Your task to perform on an android device: toggle priority inbox in the gmail app Image 0: 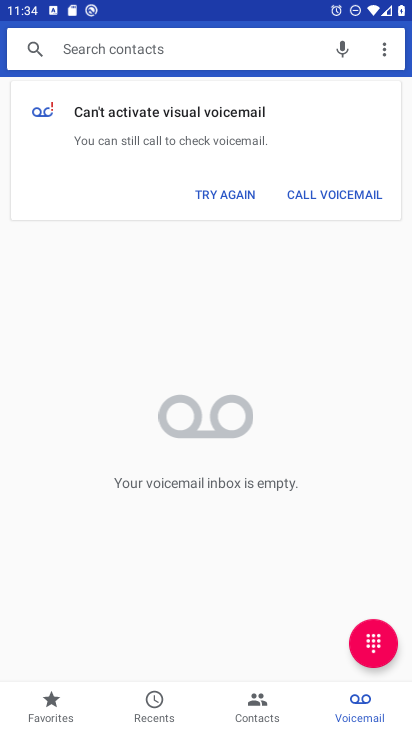
Step 0: press home button
Your task to perform on an android device: toggle priority inbox in the gmail app Image 1: 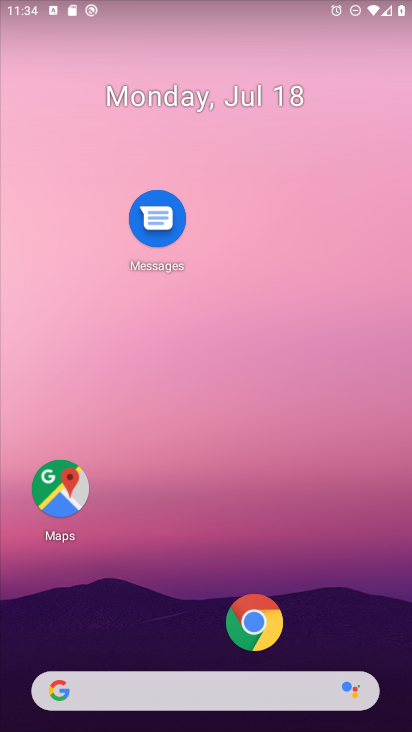
Step 1: drag from (204, 684) to (224, 190)
Your task to perform on an android device: toggle priority inbox in the gmail app Image 2: 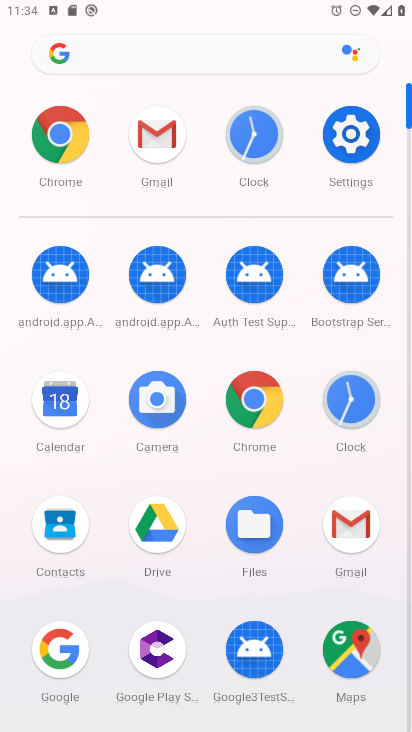
Step 2: click (363, 546)
Your task to perform on an android device: toggle priority inbox in the gmail app Image 3: 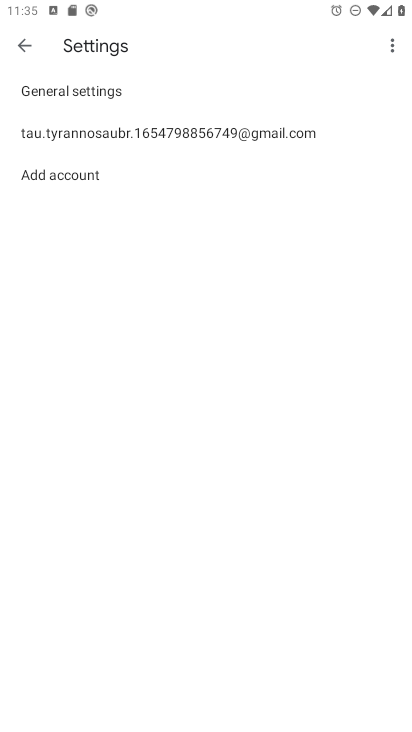
Step 3: click (107, 144)
Your task to perform on an android device: toggle priority inbox in the gmail app Image 4: 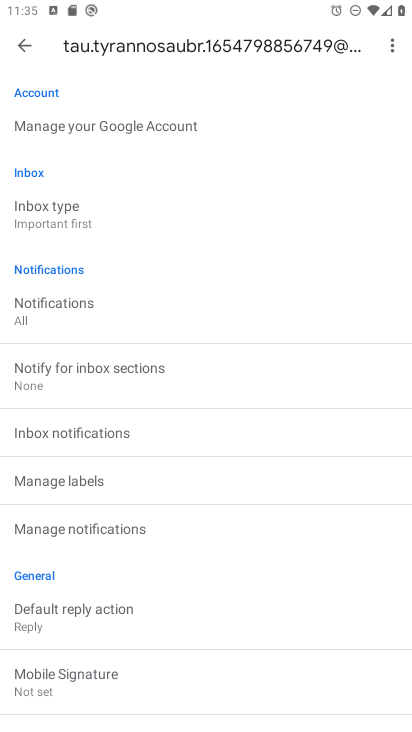
Step 4: click (66, 214)
Your task to perform on an android device: toggle priority inbox in the gmail app Image 5: 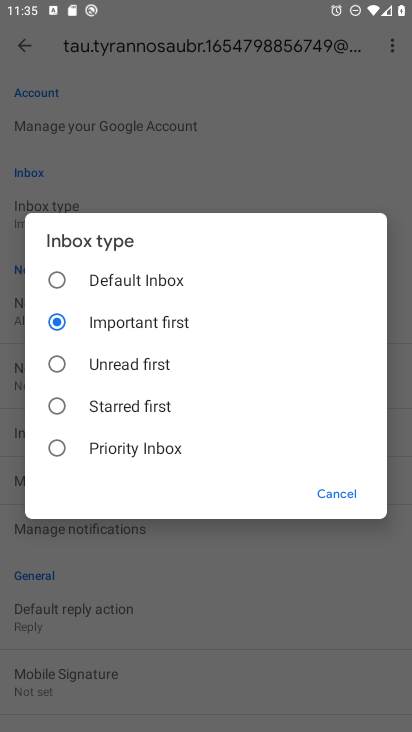
Step 5: click (124, 444)
Your task to perform on an android device: toggle priority inbox in the gmail app Image 6: 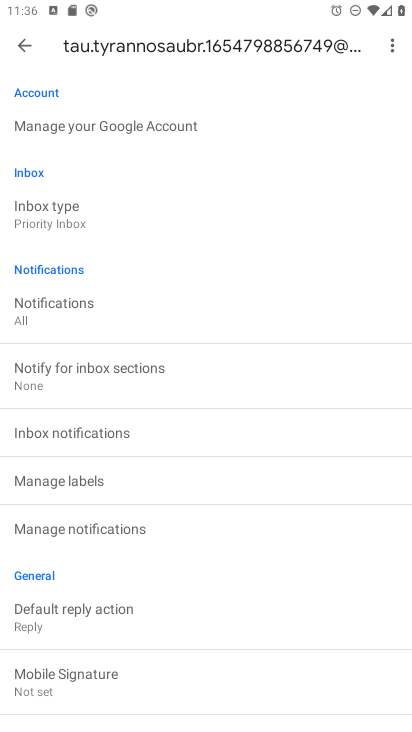
Step 6: task complete